Your task to perform on an android device: Open Chrome and go to the settings page Image 0: 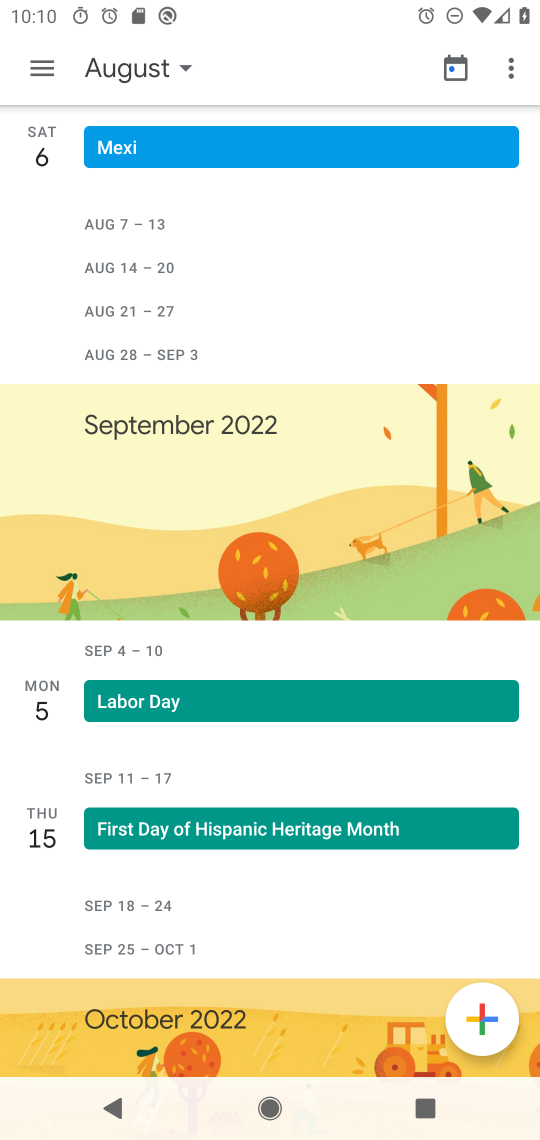
Step 0: press home button
Your task to perform on an android device: Open Chrome and go to the settings page Image 1: 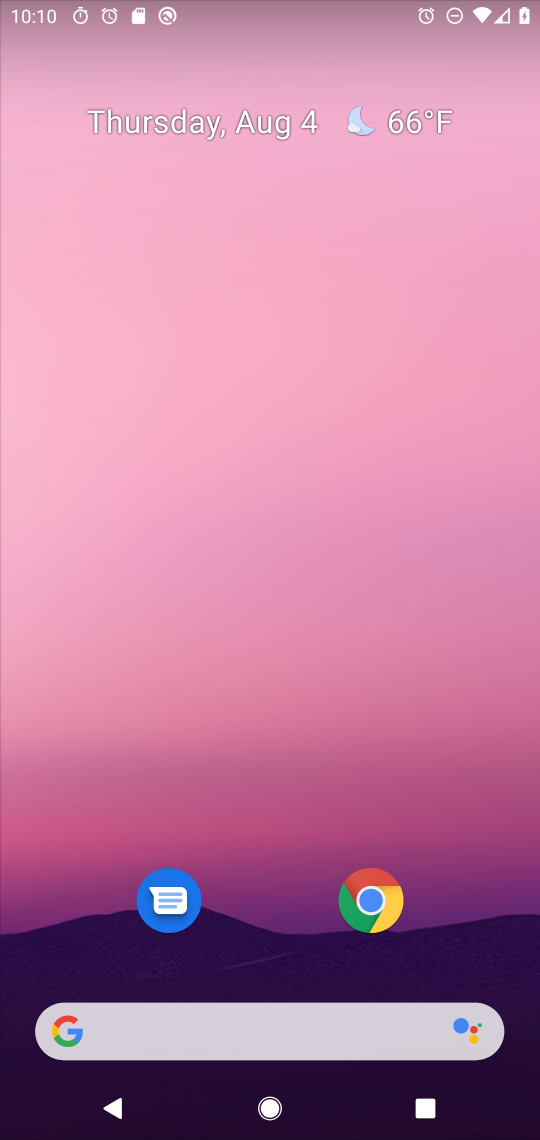
Step 1: click (374, 899)
Your task to perform on an android device: Open Chrome and go to the settings page Image 2: 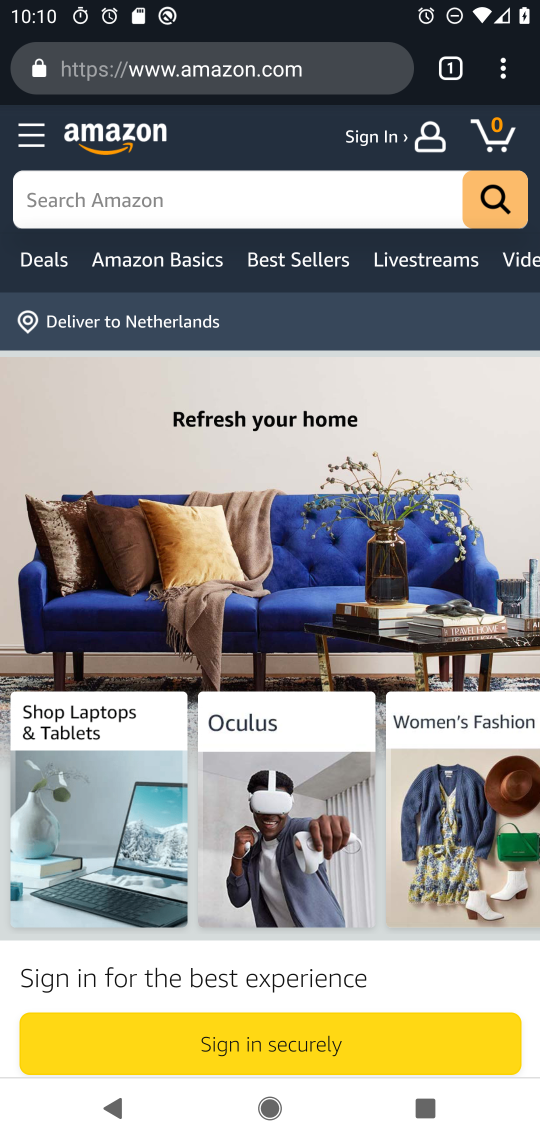
Step 2: task complete